Your task to perform on an android device: set the stopwatch Image 0: 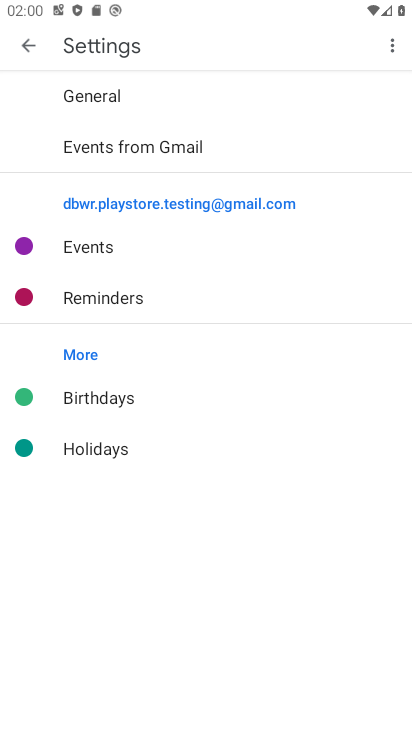
Step 0: press home button
Your task to perform on an android device: set the stopwatch Image 1: 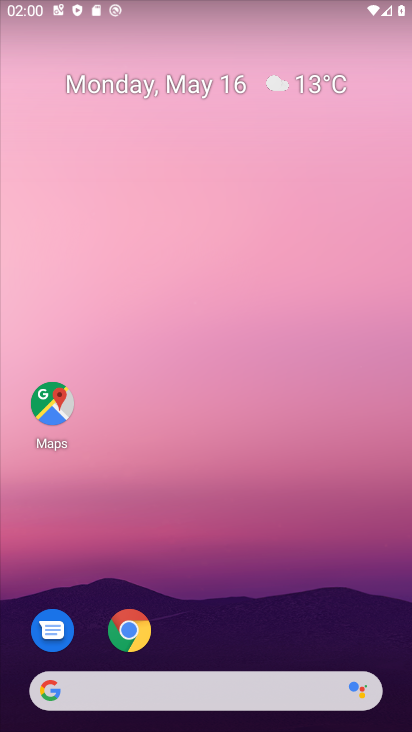
Step 1: drag from (373, 668) to (256, 134)
Your task to perform on an android device: set the stopwatch Image 2: 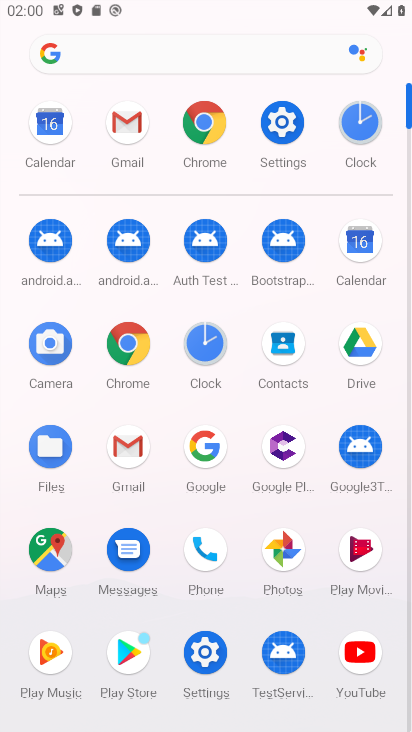
Step 2: click (360, 137)
Your task to perform on an android device: set the stopwatch Image 3: 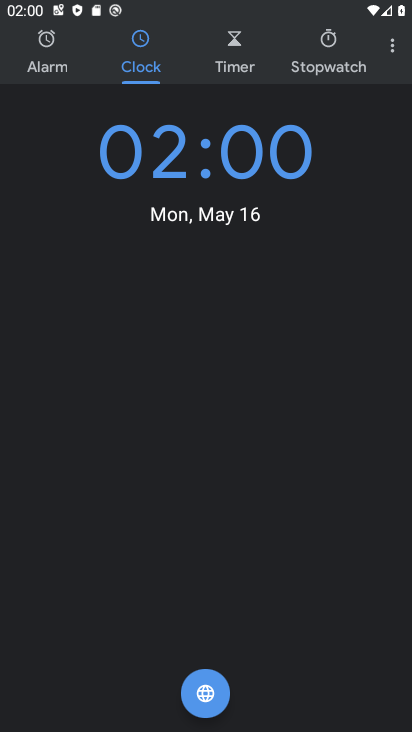
Step 3: click (342, 60)
Your task to perform on an android device: set the stopwatch Image 4: 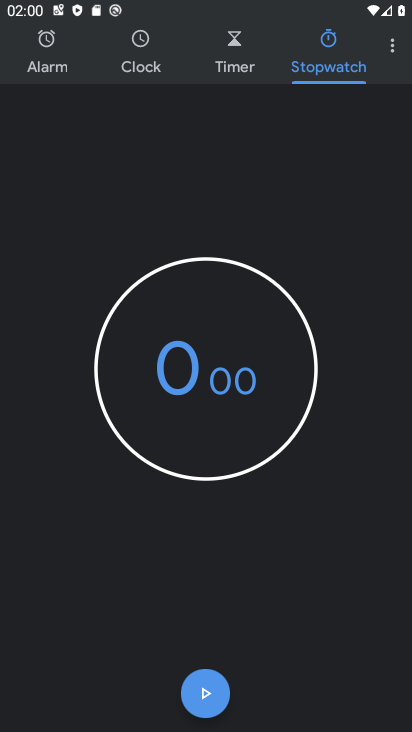
Step 4: click (205, 711)
Your task to perform on an android device: set the stopwatch Image 5: 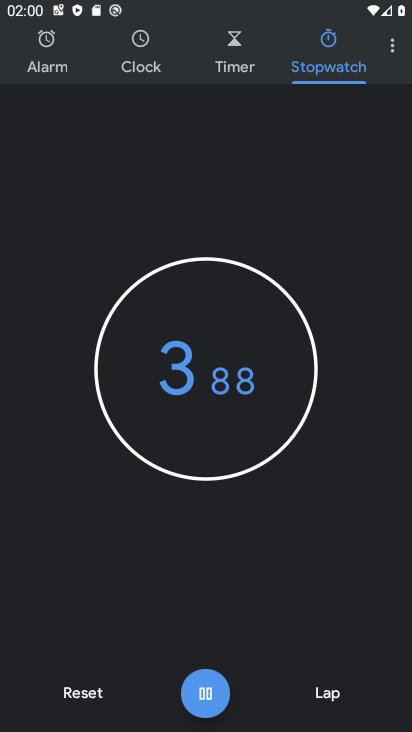
Step 5: click (205, 711)
Your task to perform on an android device: set the stopwatch Image 6: 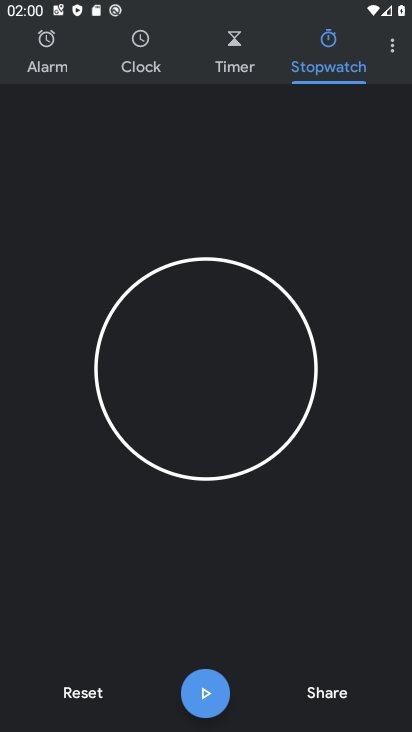
Step 6: task complete